Your task to perform on an android device: Go to privacy settings Image 0: 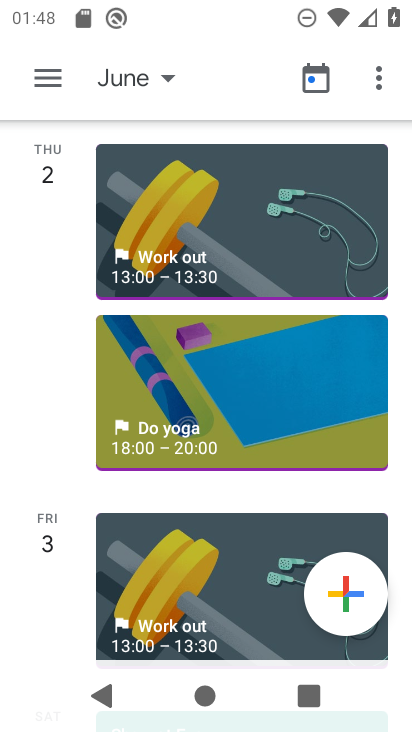
Step 0: press home button
Your task to perform on an android device: Go to privacy settings Image 1: 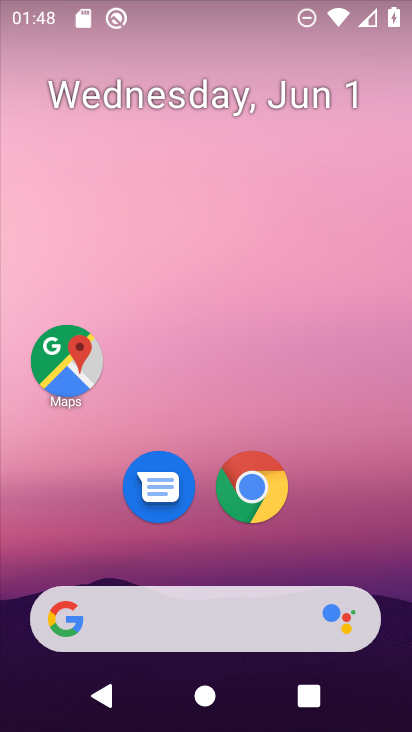
Step 1: drag from (322, 544) to (310, 177)
Your task to perform on an android device: Go to privacy settings Image 2: 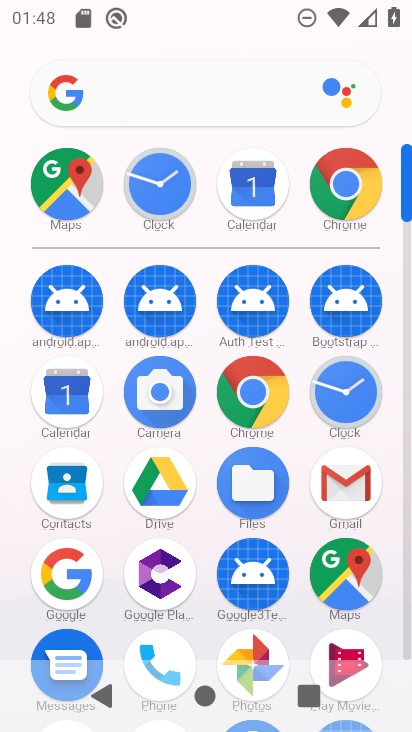
Step 2: drag from (211, 565) to (199, 355)
Your task to perform on an android device: Go to privacy settings Image 3: 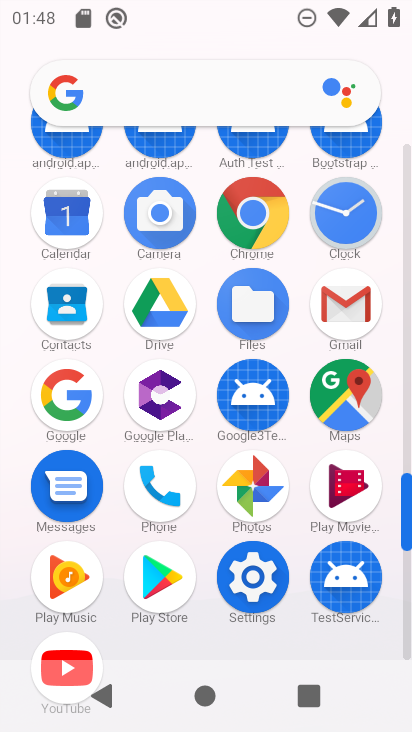
Step 3: click (243, 581)
Your task to perform on an android device: Go to privacy settings Image 4: 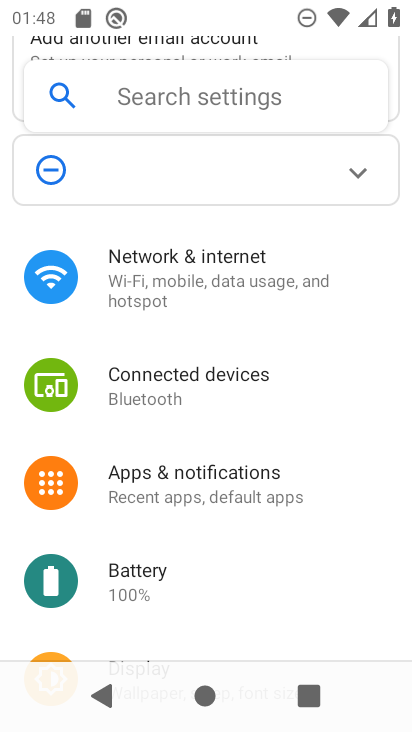
Step 4: drag from (201, 556) to (248, 237)
Your task to perform on an android device: Go to privacy settings Image 5: 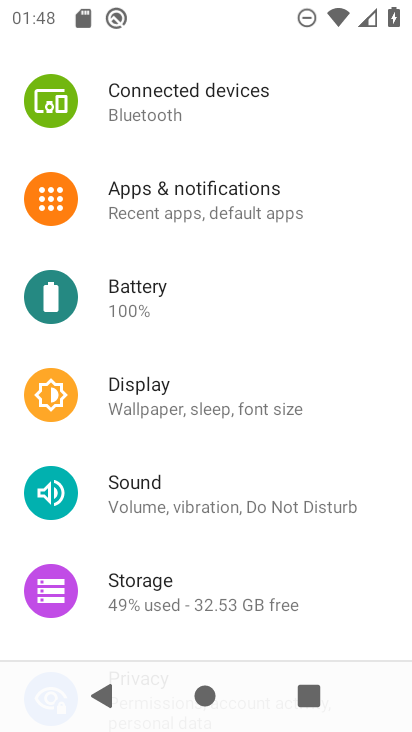
Step 5: drag from (208, 465) to (230, 233)
Your task to perform on an android device: Go to privacy settings Image 6: 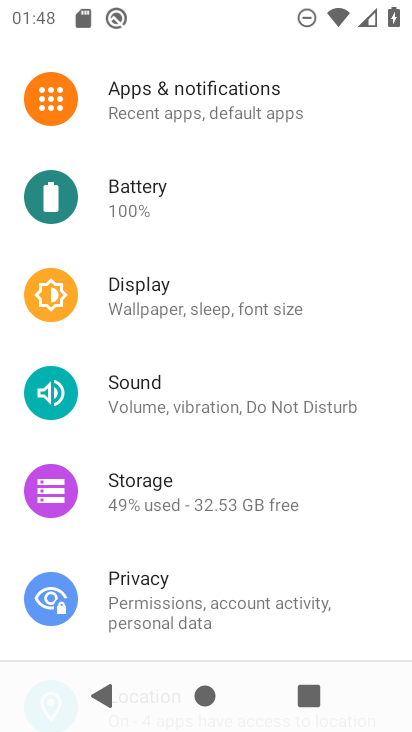
Step 6: click (164, 578)
Your task to perform on an android device: Go to privacy settings Image 7: 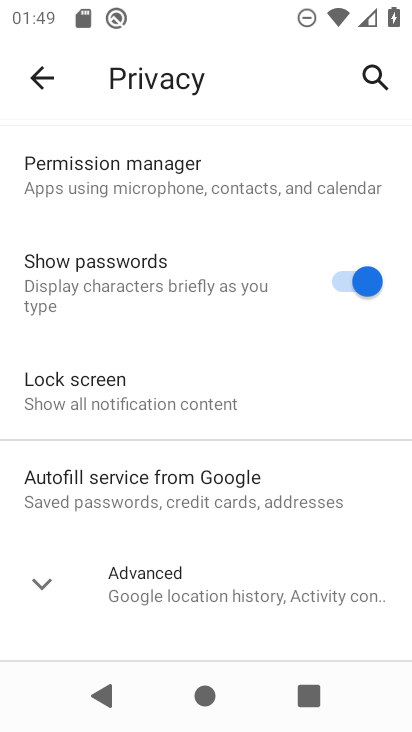
Step 7: task complete